Your task to perform on an android device: Show me the alarms in the clock app Image 0: 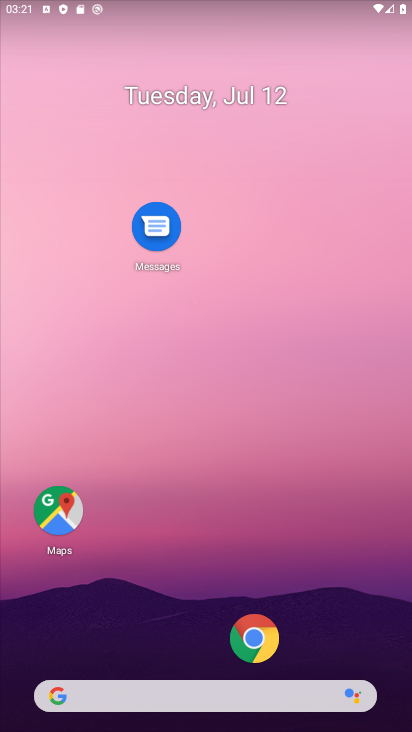
Step 0: drag from (168, 624) to (188, 182)
Your task to perform on an android device: Show me the alarms in the clock app Image 1: 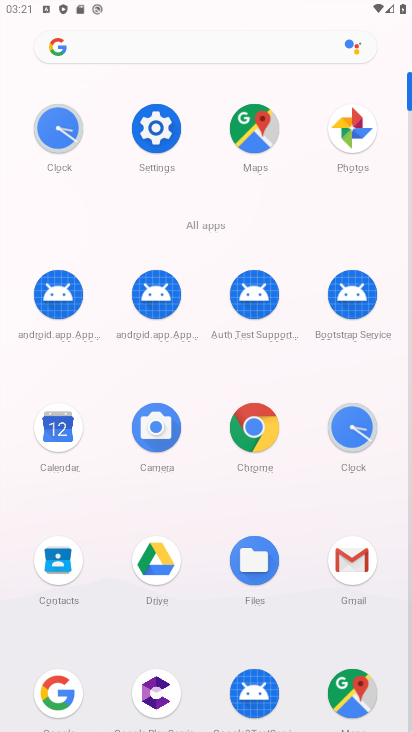
Step 1: click (367, 414)
Your task to perform on an android device: Show me the alarms in the clock app Image 2: 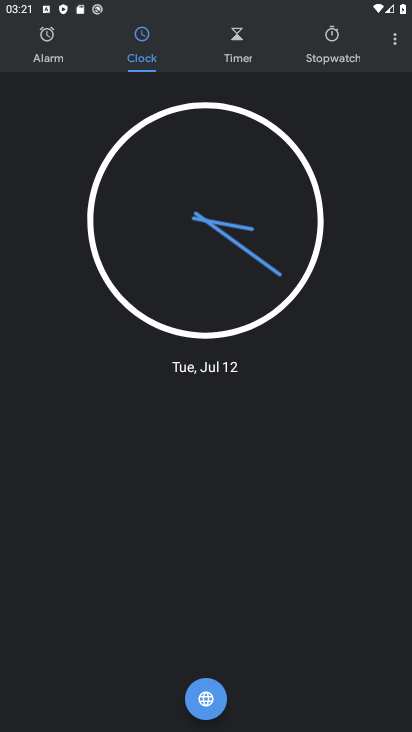
Step 2: click (62, 43)
Your task to perform on an android device: Show me the alarms in the clock app Image 3: 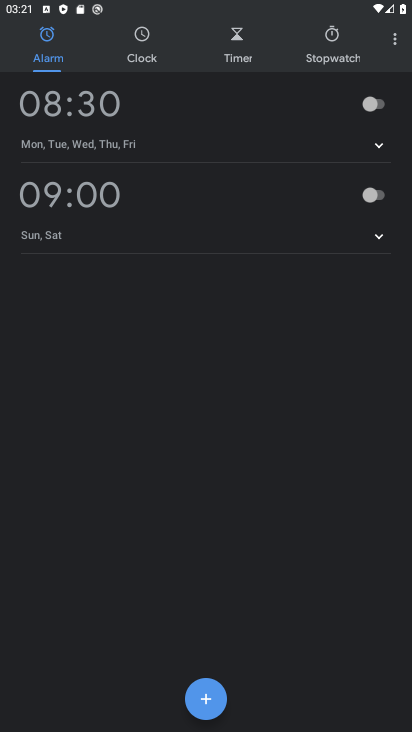
Step 3: task complete